Your task to perform on an android device: Open battery settings Image 0: 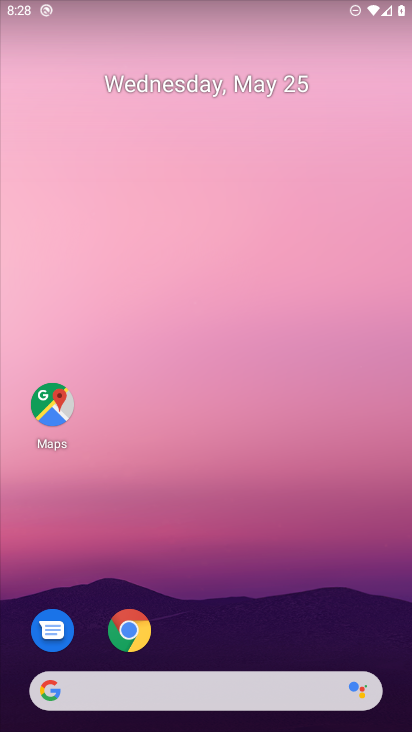
Step 0: drag from (198, 675) to (213, 309)
Your task to perform on an android device: Open battery settings Image 1: 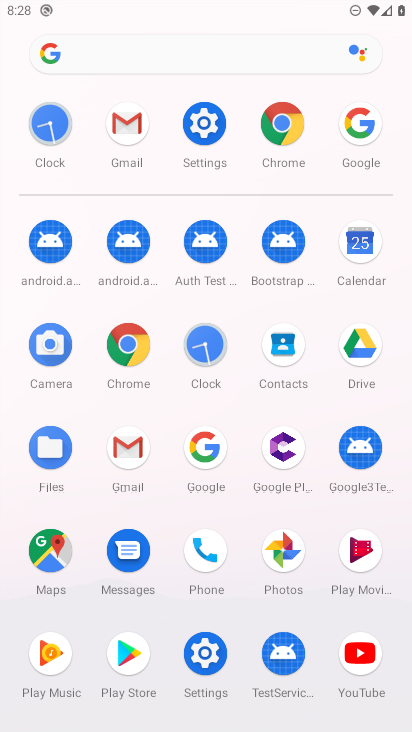
Step 1: click (208, 125)
Your task to perform on an android device: Open battery settings Image 2: 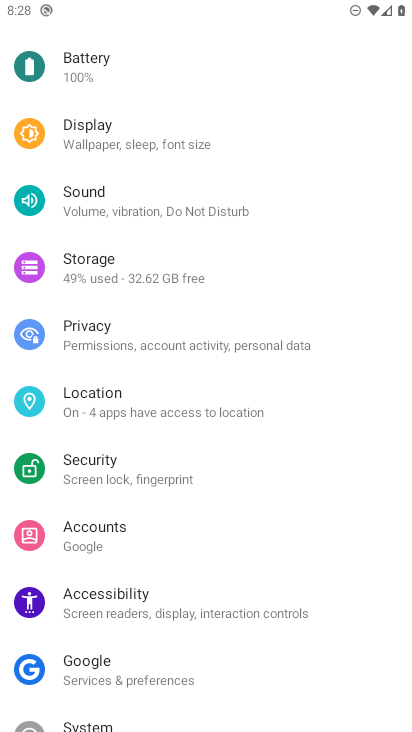
Step 2: click (79, 76)
Your task to perform on an android device: Open battery settings Image 3: 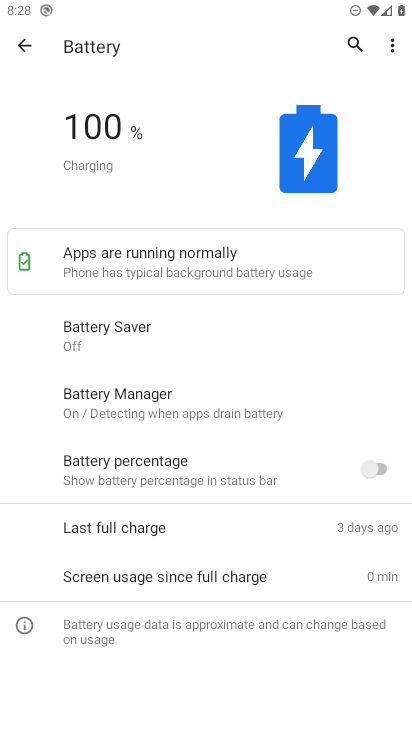
Step 3: task complete